Your task to perform on an android device: Clear the shopping cart on amazon.com. Add dell alienware to the cart on amazon.com, then select checkout. Image 0: 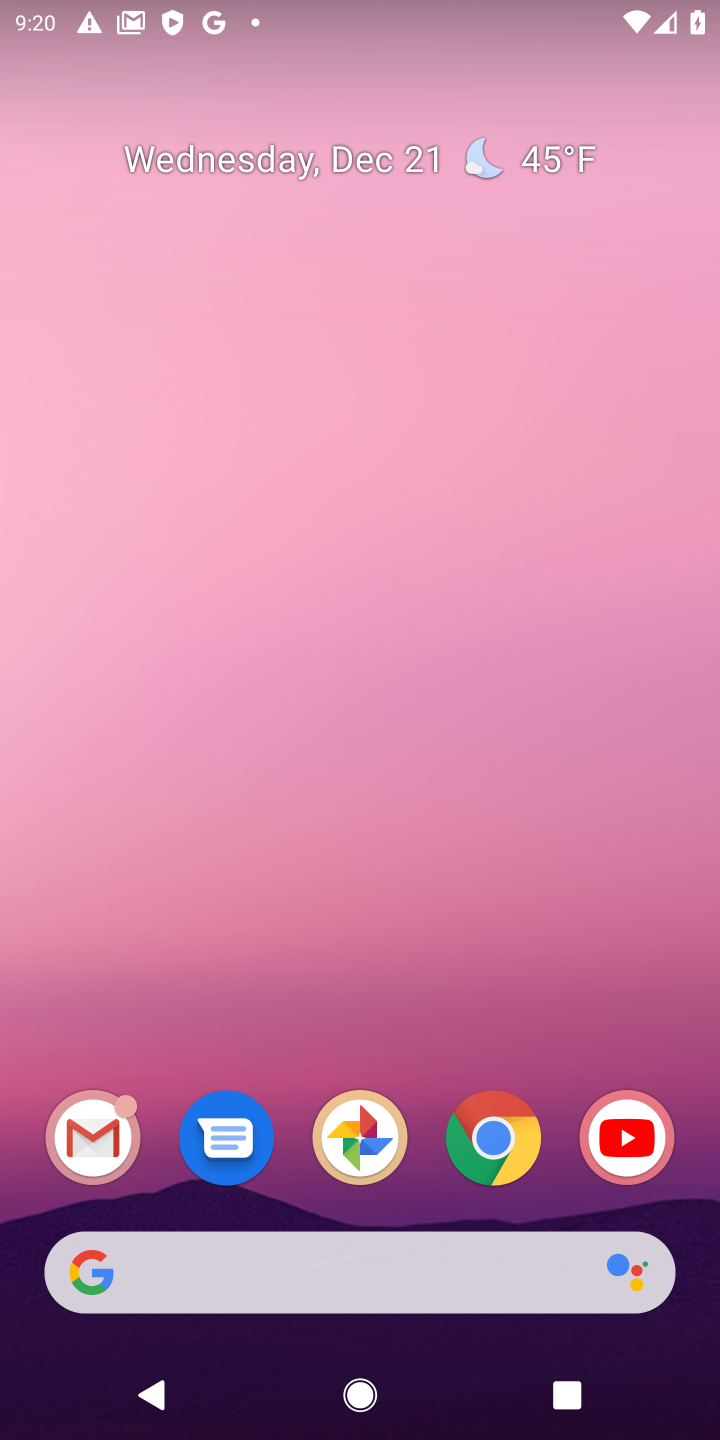
Step 0: click (496, 1151)
Your task to perform on an android device: Clear the shopping cart on amazon.com. Add dell alienware to the cart on amazon.com, then select checkout. Image 1: 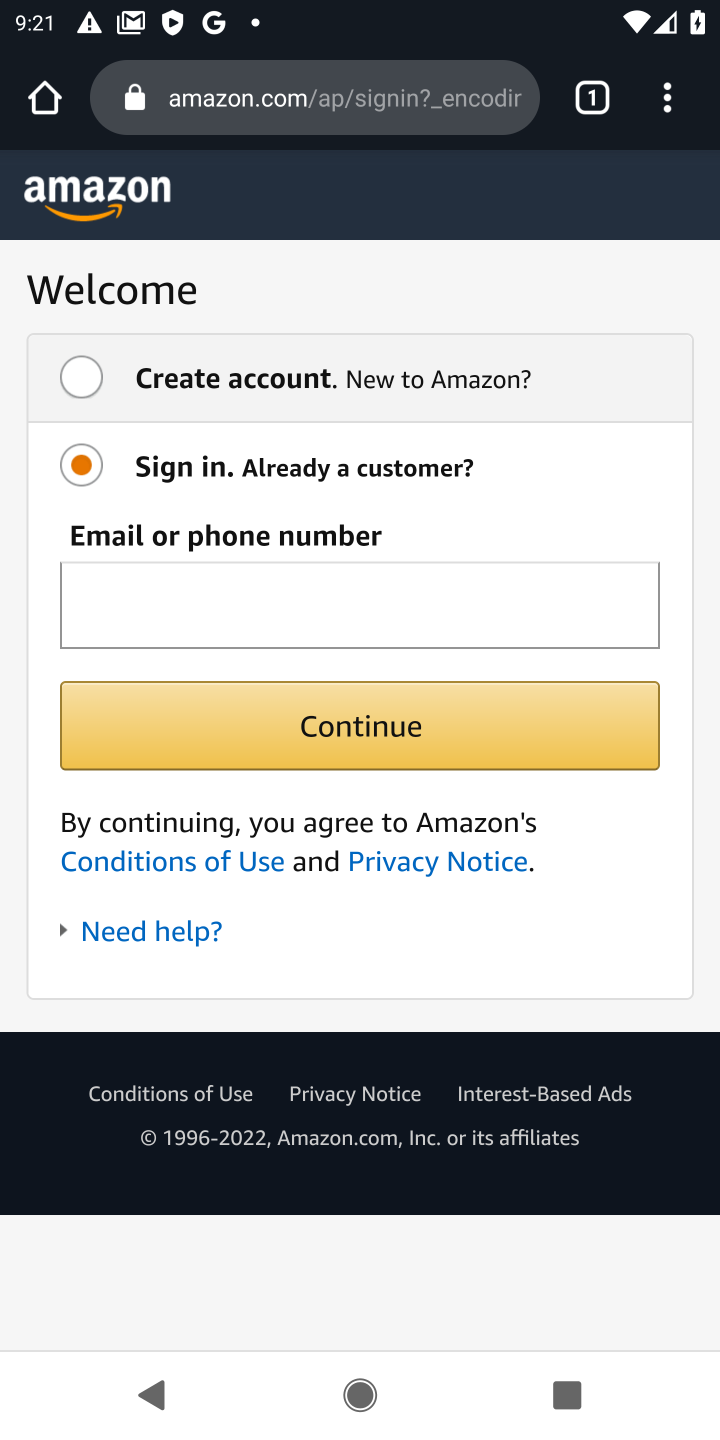
Step 1: press back button
Your task to perform on an android device: Clear the shopping cart on amazon.com. Add dell alienware to the cart on amazon.com, then select checkout. Image 2: 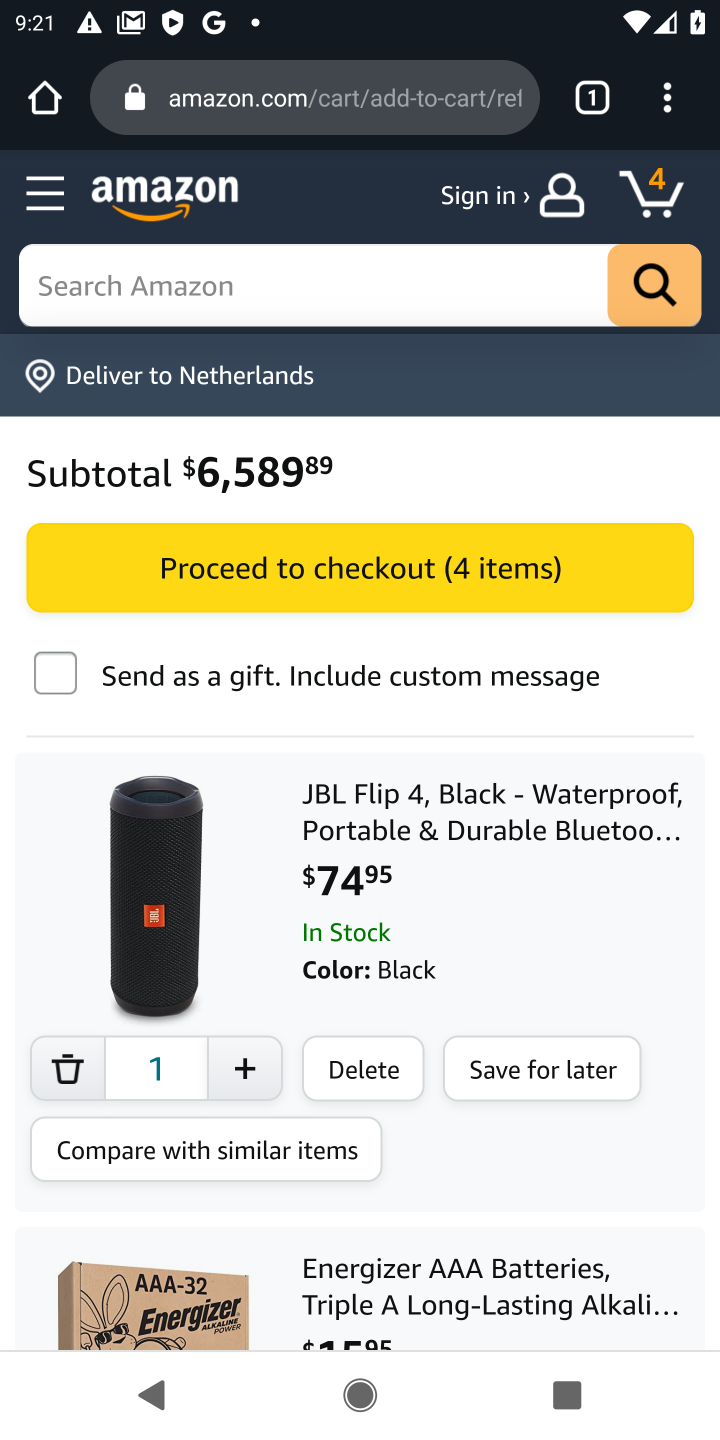
Step 2: click (355, 1063)
Your task to perform on an android device: Clear the shopping cart on amazon.com. Add dell alienware to the cart on amazon.com, then select checkout. Image 3: 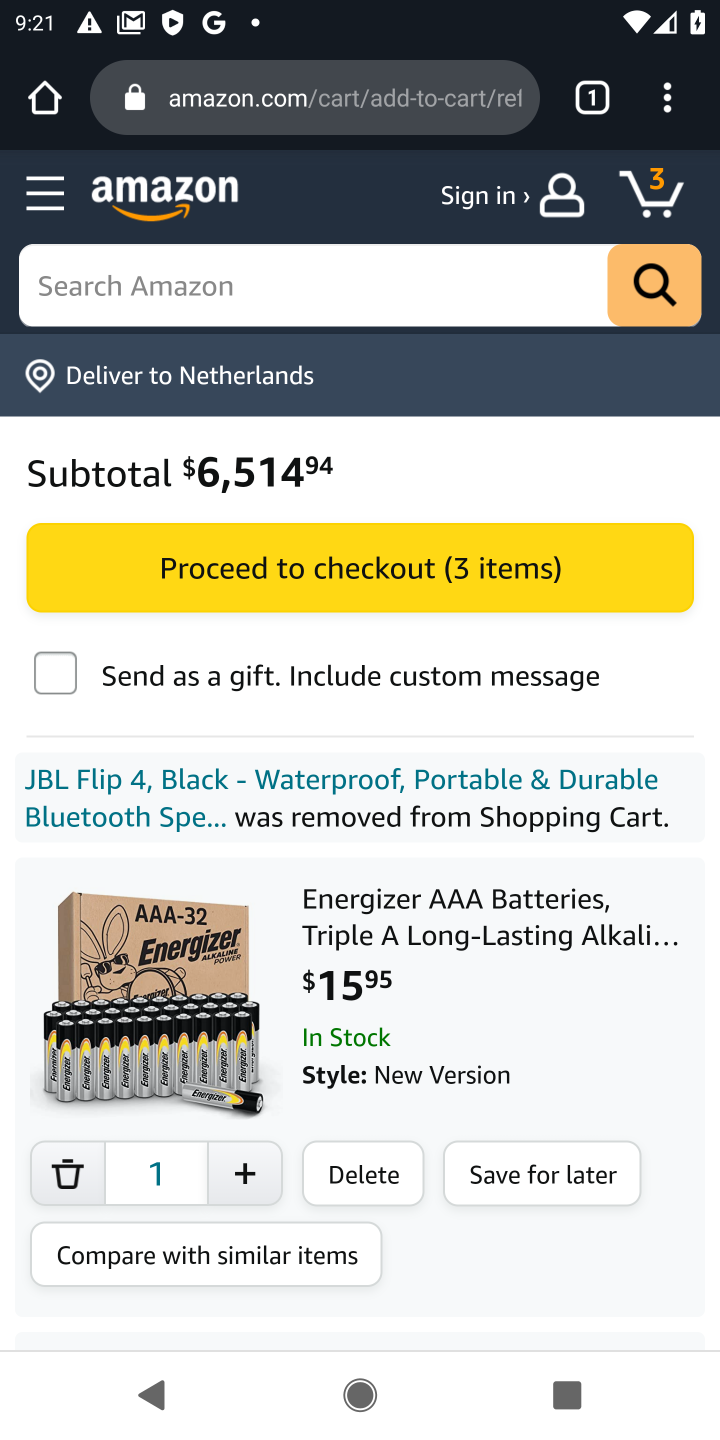
Step 3: click (372, 1186)
Your task to perform on an android device: Clear the shopping cart on amazon.com. Add dell alienware to the cart on amazon.com, then select checkout. Image 4: 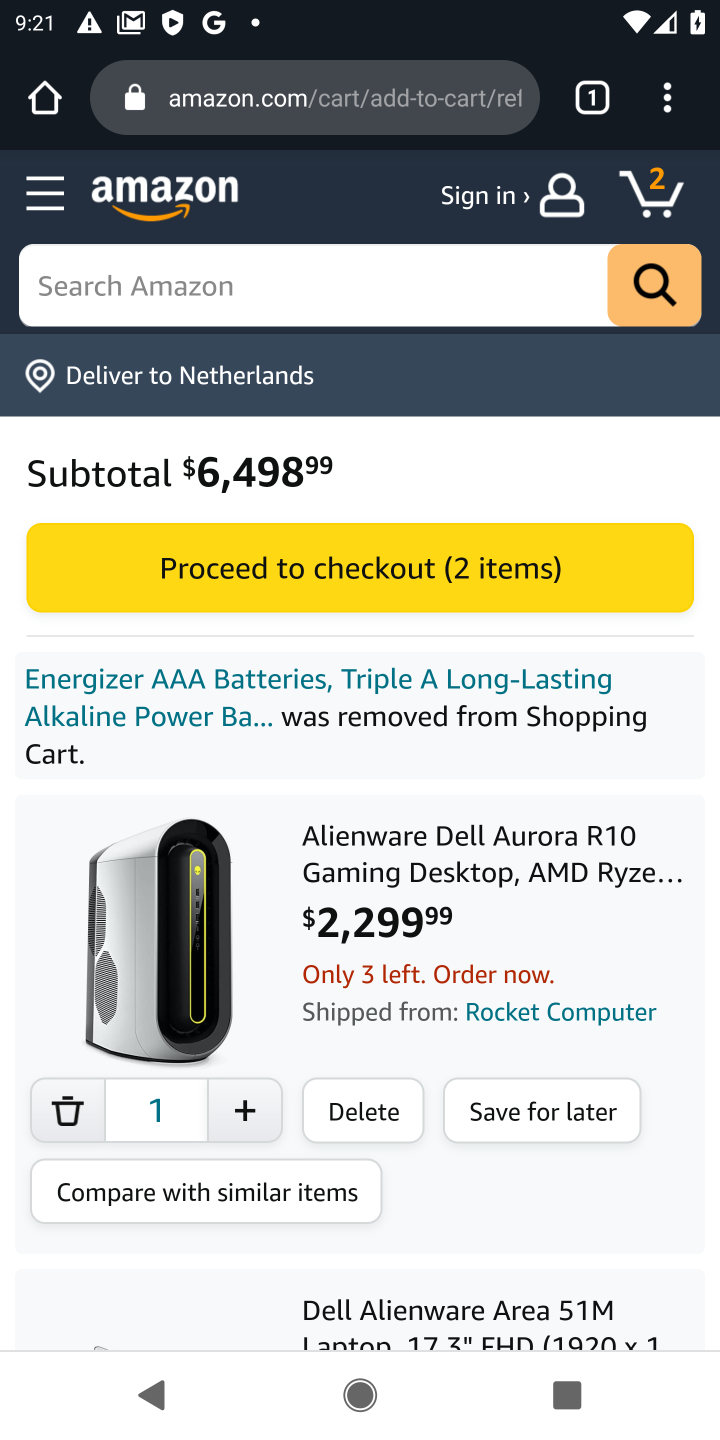
Step 4: click (374, 1104)
Your task to perform on an android device: Clear the shopping cart on amazon.com. Add dell alienware to the cart on amazon.com, then select checkout. Image 5: 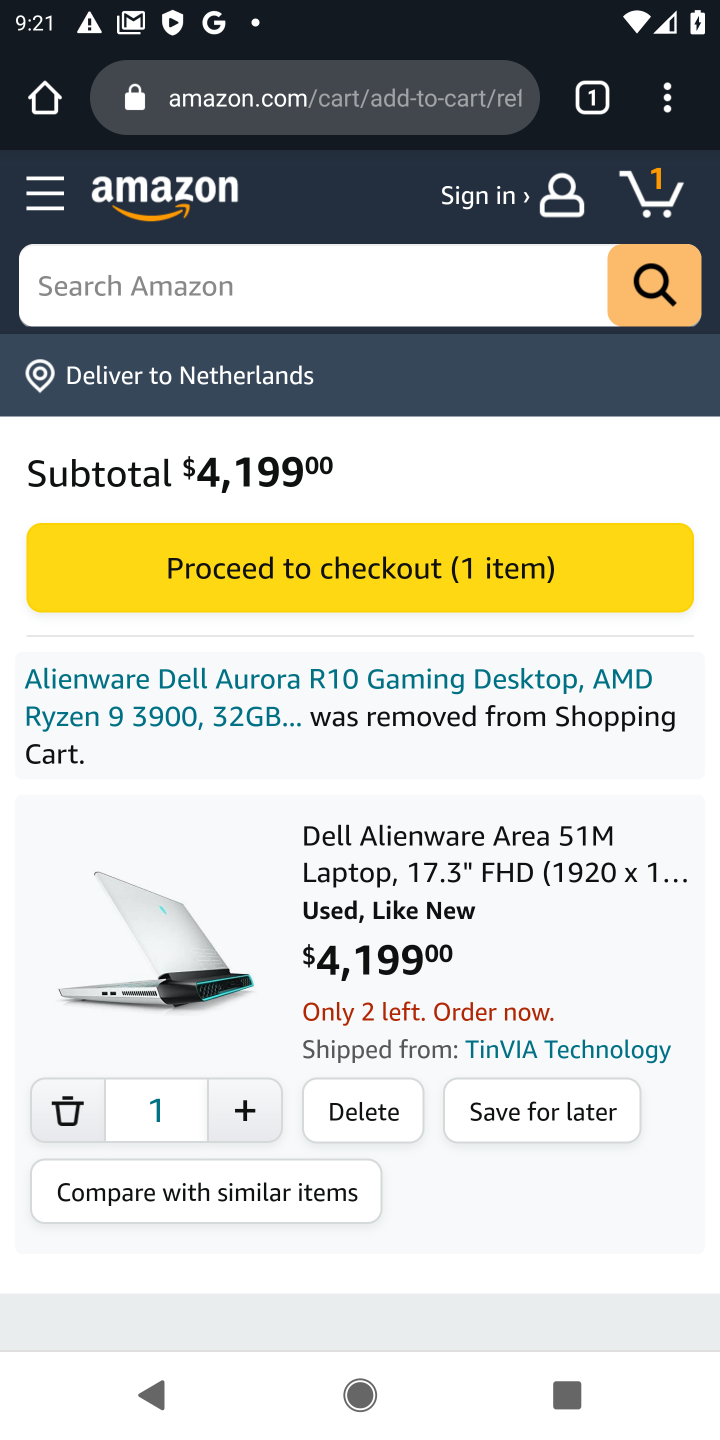
Step 5: click (361, 1096)
Your task to perform on an android device: Clear the shopping cart on amazon.com. Add dell alienware to the cart on amazon.com, then select checkout. Image 6: 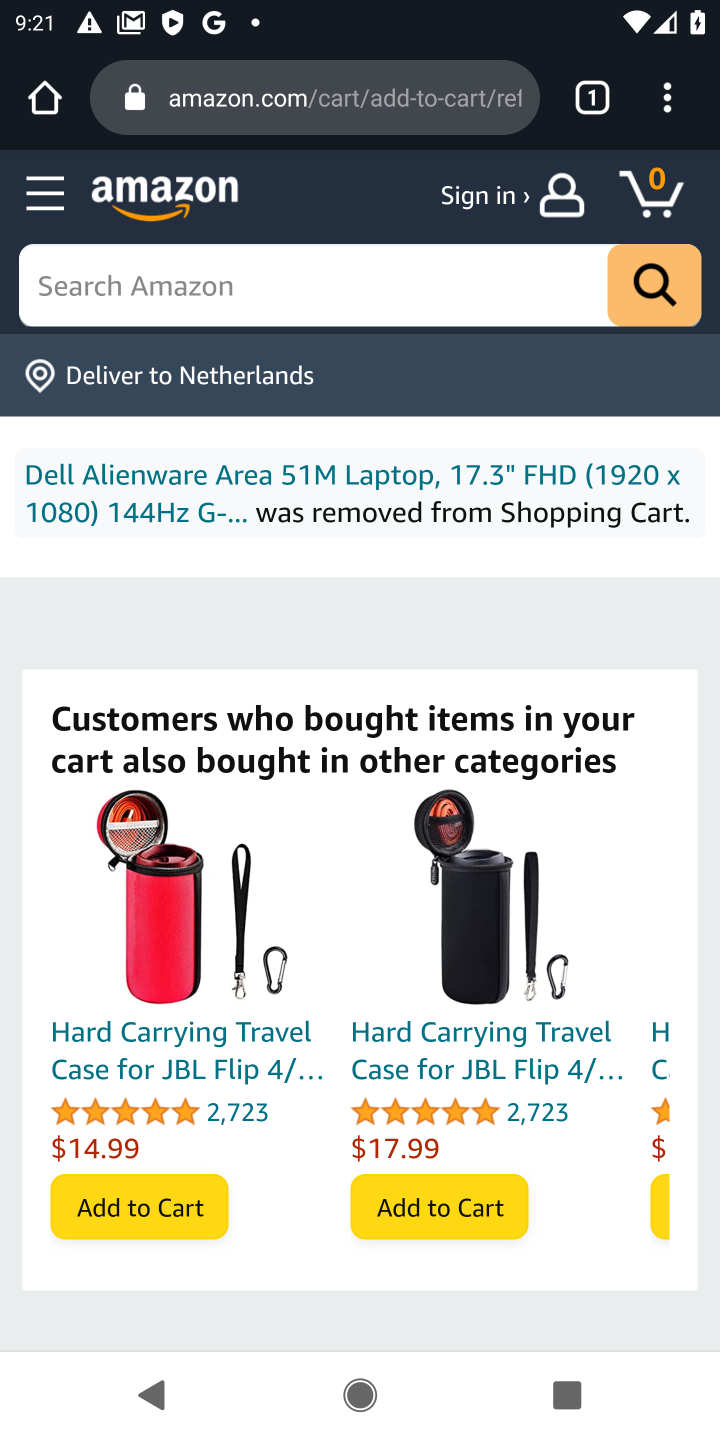
Step 6: click (186, 283)
Your task to perform on an android device: Clear the shopping cart on amazon.com. Add dell alienware to the cart on amazon.com, then select checkout. Image 7: 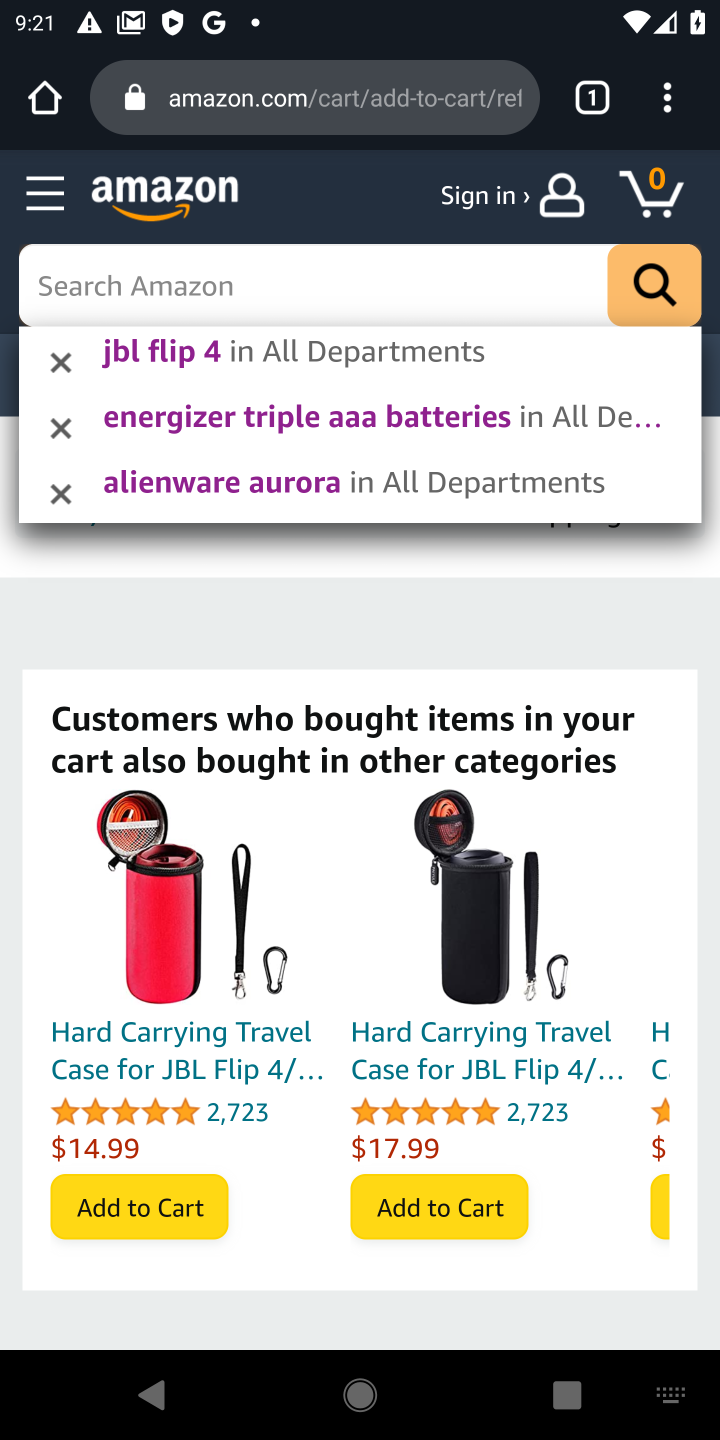
Step 7: type "dell alienware"
Your task to perform on an android device: Clear the shopping cart on amazon.com. Add dell alienware to the cart on amazon.com, then select checkout. Image 8: 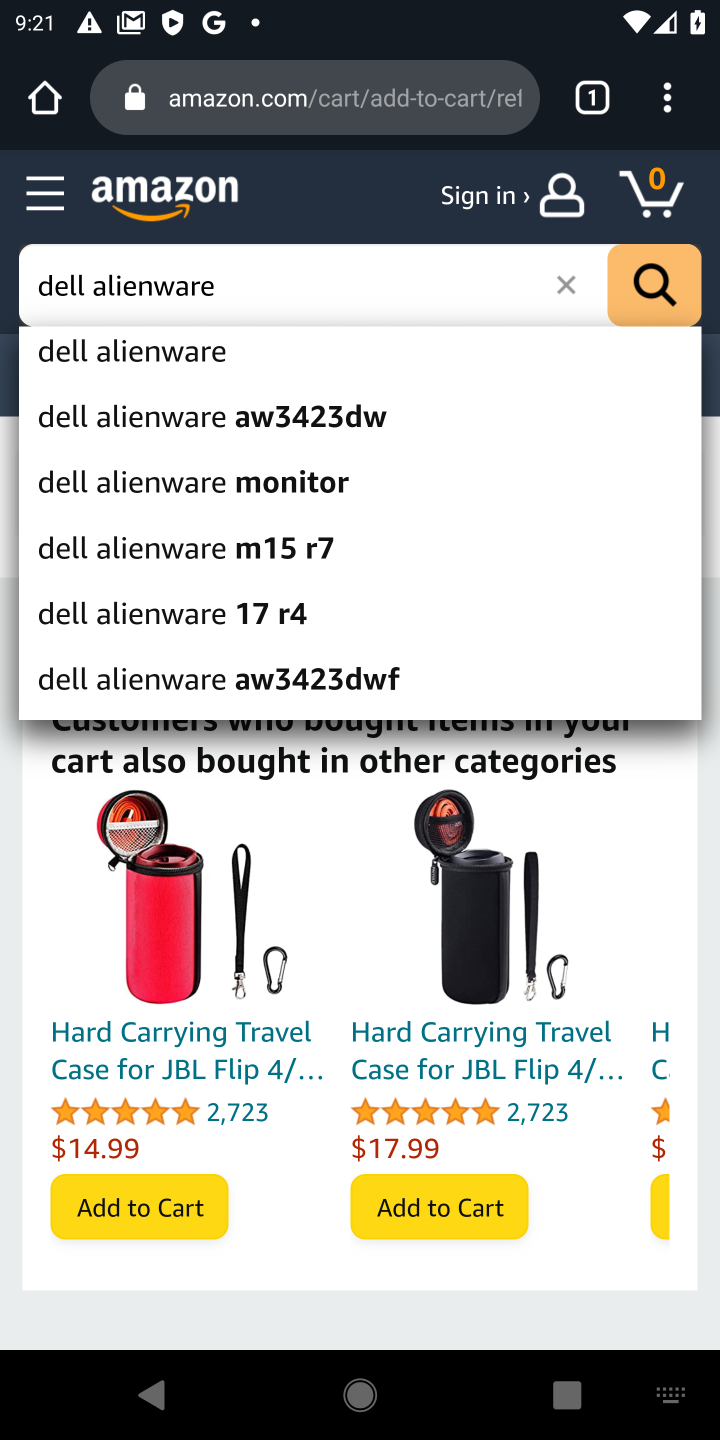
Step 8: click (117, 363)
Your task to perform on an android device: Clear the shopping cart on amazon.com. Add dell alienware to the cart on amazon.com, then select checkout. Image 9: 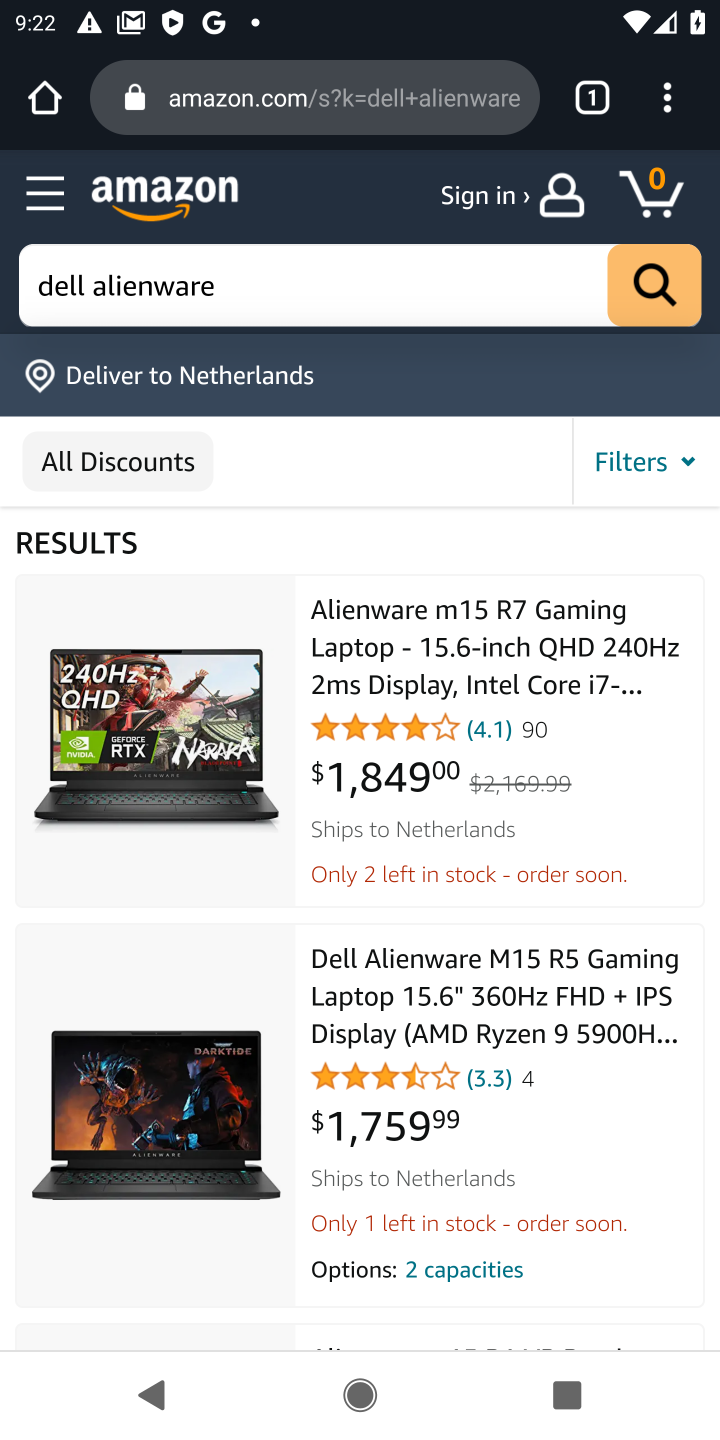
Step 9: click (447, 687)
Your task to perform on an android device: Clear the shopping cart on amazon.com. Add dell alienware to the cart on amazon.com, then select checkout. Image 10: 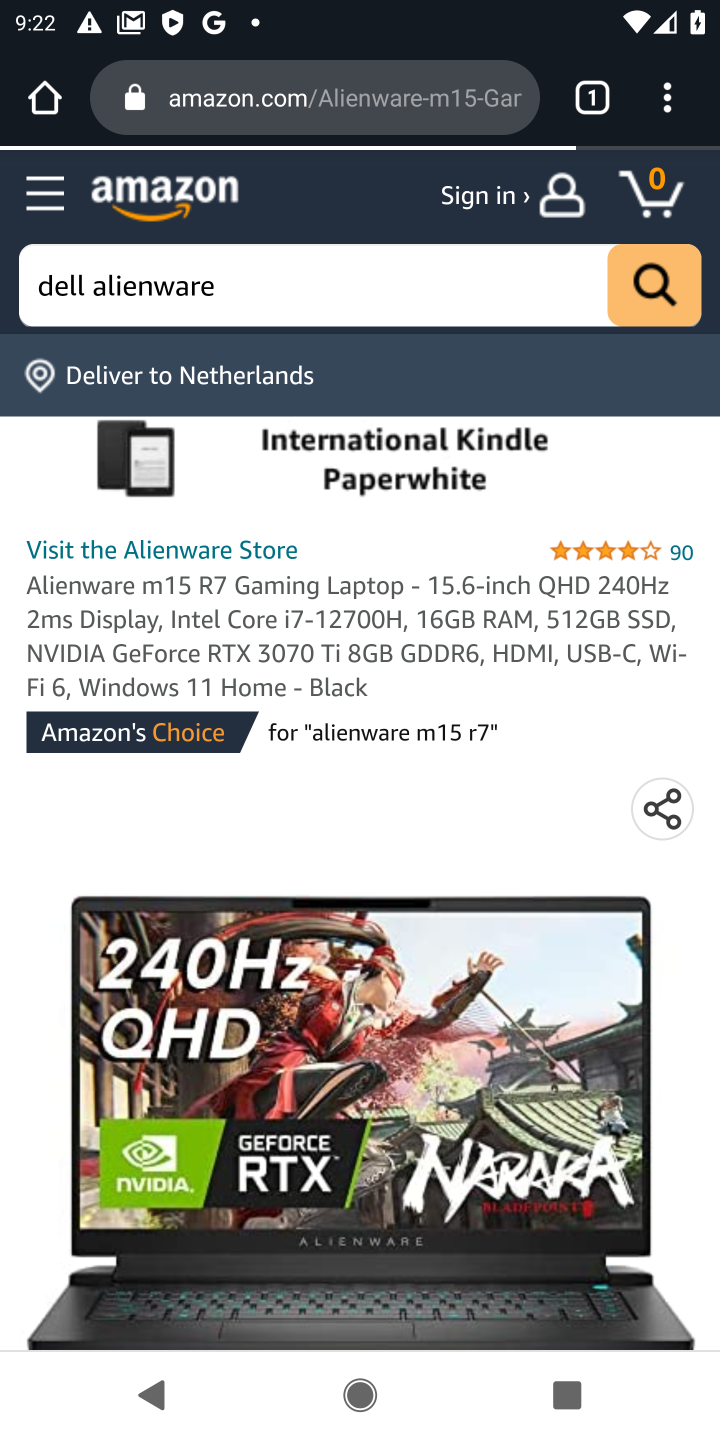
Step 10: drag from (350, 972) to (357, 618)
Your task to perform on an android device: Clear the shopping cart on amazon.com. Add dell alienware to the cart on amazon.com, then select checkout. Image 11: 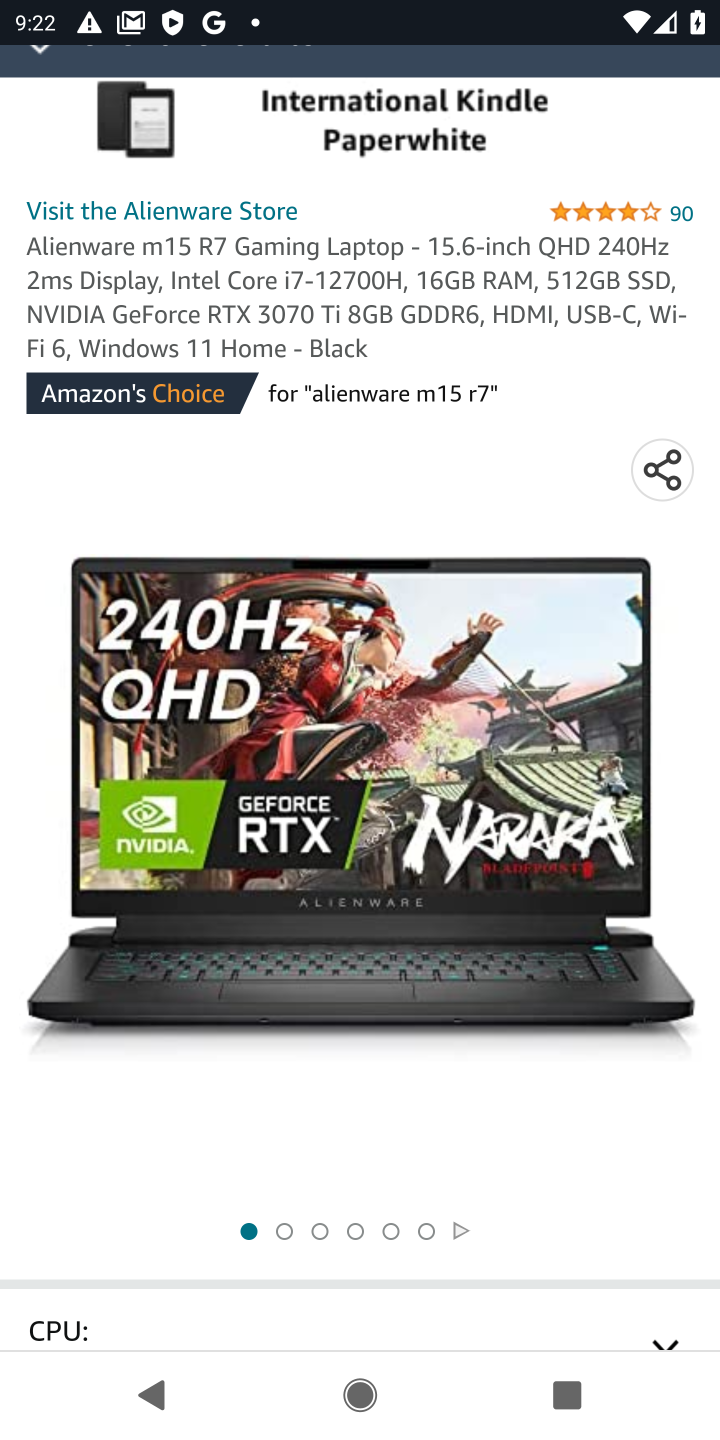
Step 11: drag from (419, 1027) to (411, 542)
Your task to perform on an android device: Clear the shopping cart on amazon.com. Add dell alienware to the cart on amazon.com, then select checkout. Image 12: 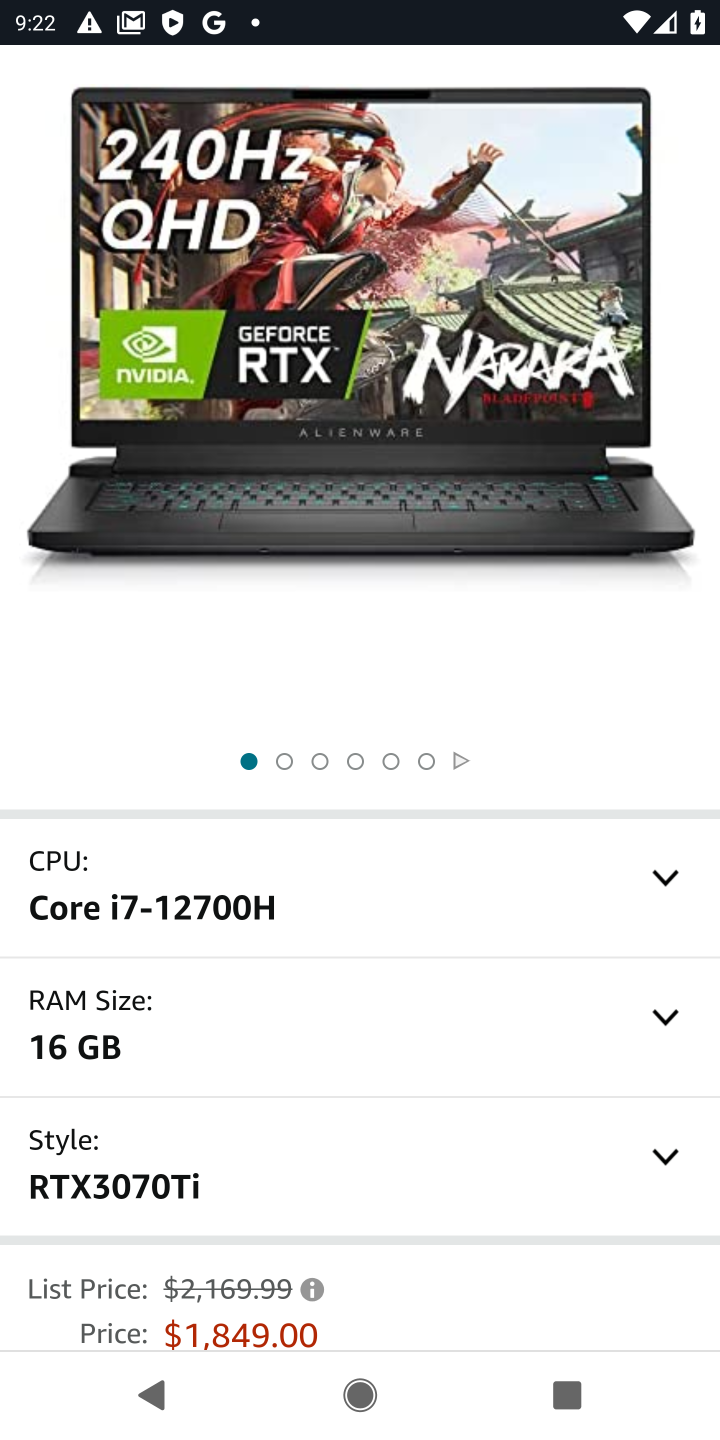
Step 12: drag from (391, 1041) to (391, 534)
Your task to perform on an android device: Clear the shopping cart on amazon.com. Add dell alienware to the cart on amazon.com, then select checkout. Image 13: 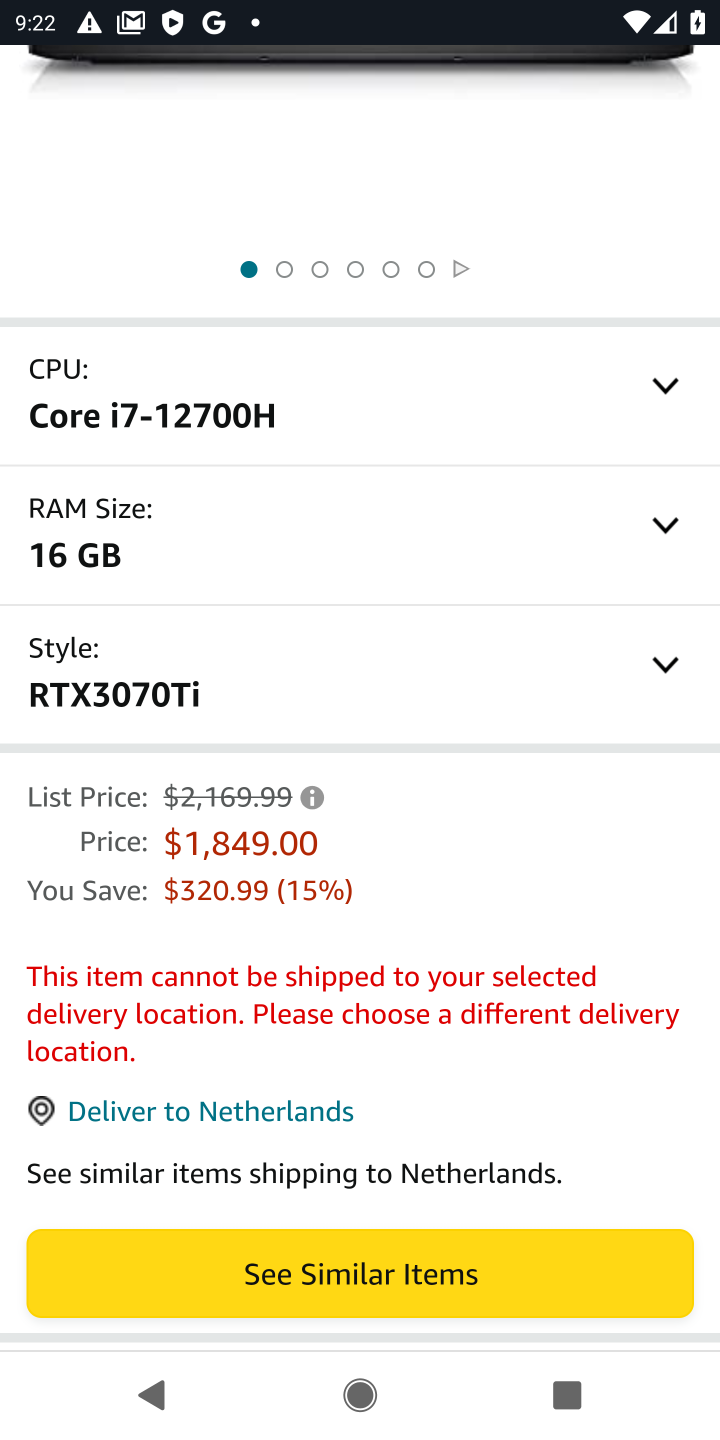
Step 13: press back button
Your task to perform on an android device: Clear the shopping cart on amazon.com. Add dell alienware to the cart on amazon.com, then select checkout. Image 14: 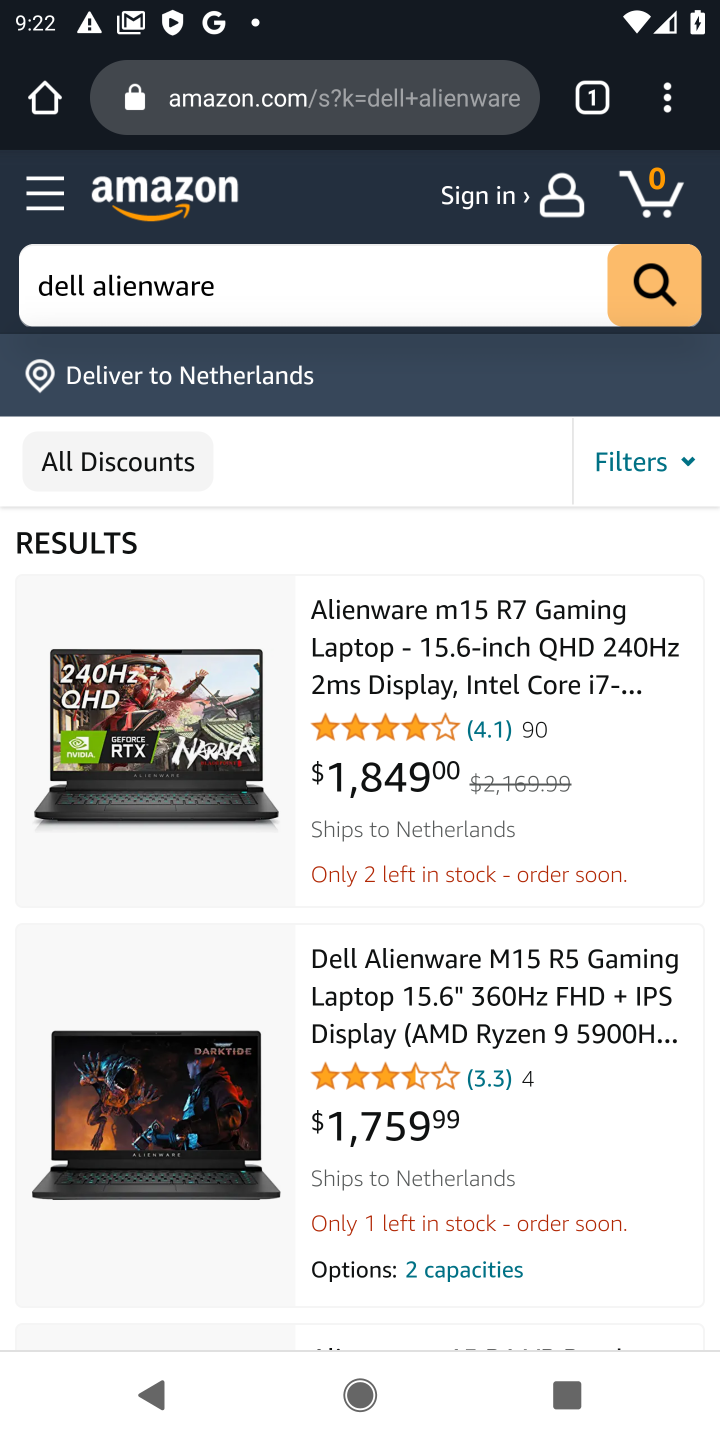
Step 14: drag from (378, 896) to (372, 552)
Your task to perform on an android device: Clear the shopping cart on amazon.com. Add dell alienware to the cart on amazon.com, then select checkout. Image 15: 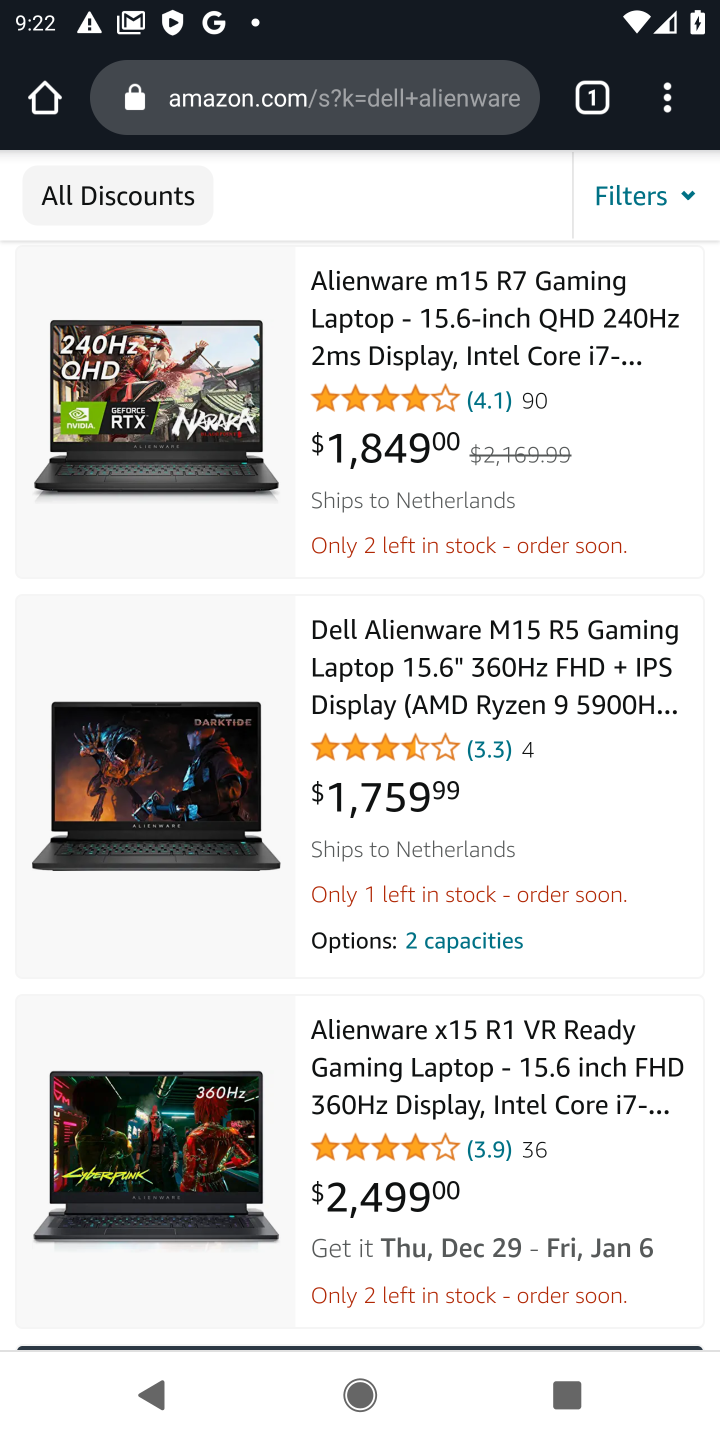
Step 15: drag from (369, 962) to (392, 611)
Your task to perform on an android device: Clear the shopping cart on amazon.com. Add dell alienware to the cart on amazon.com, then select checkout. Image 16: 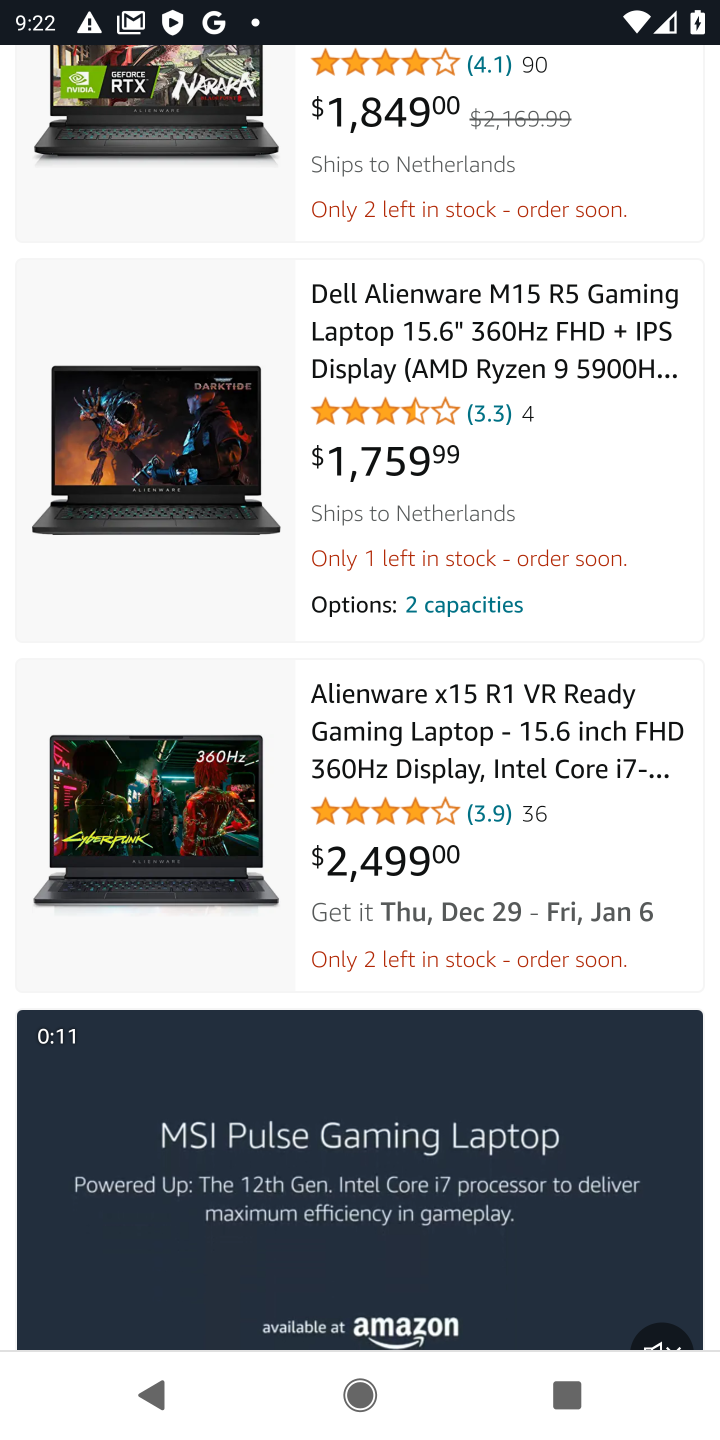
Step 16: click (436, 357)
Your task to perform on an android device: Clear the shopping cart on amazon.com. Add dell alienware to the cart on amazon.com, then select checkout. Image 17: 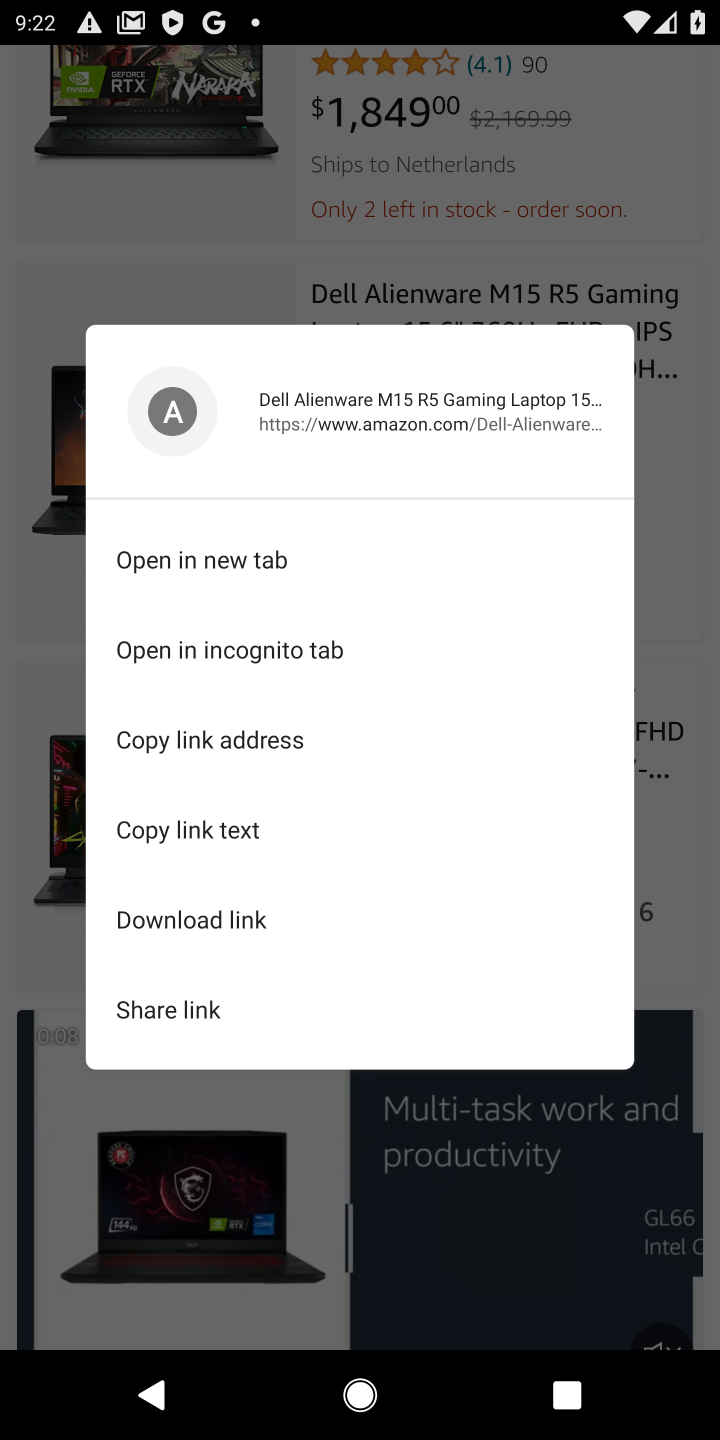
Step 17: click (638, 304)
Your task to perform on an android device: Clear the shopping cart on amazon.com. Add dell alienware to the cart on amazon.com, then select checkout. Image 18: 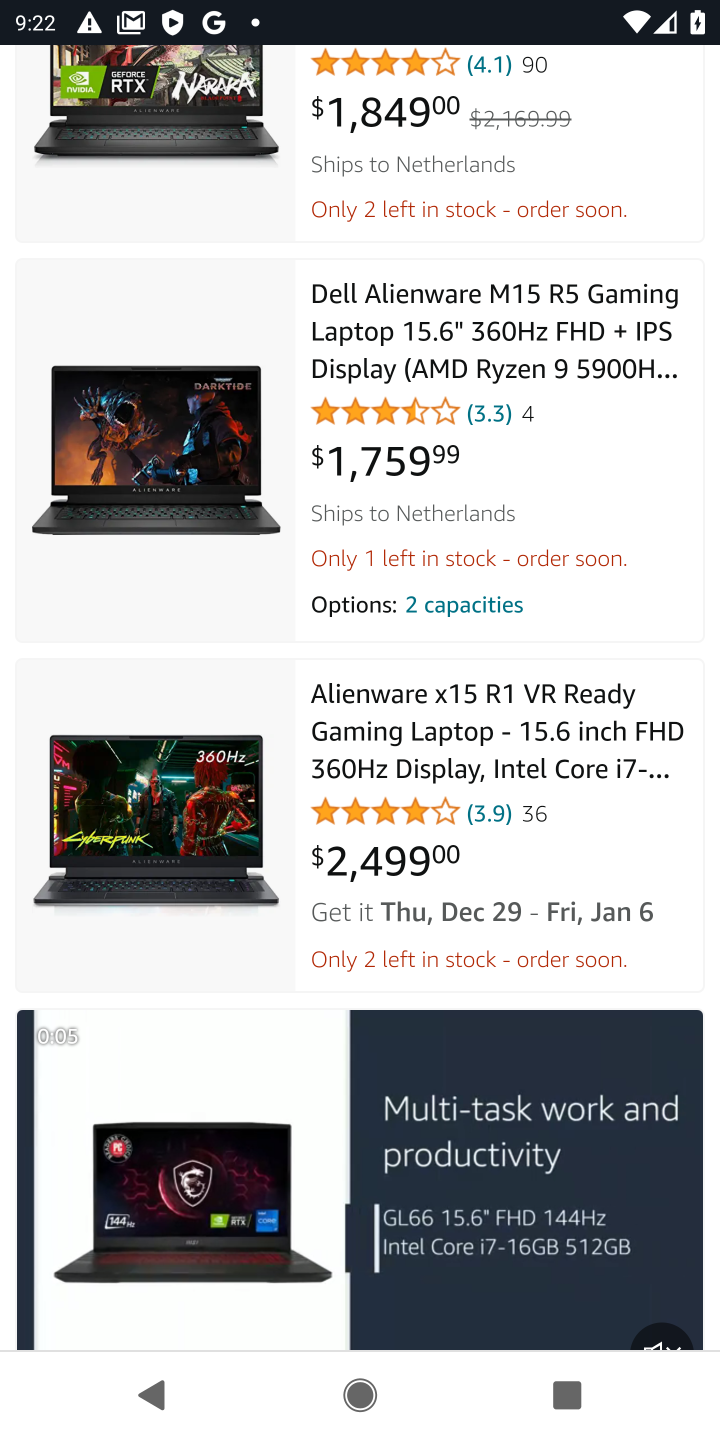
Step 18: click (386, 369)
Your task to perform on an android device: Clear the shopping cart on amazon.com. Add dell alienware to the cart on amazon.com, then select checkout. Image 19: 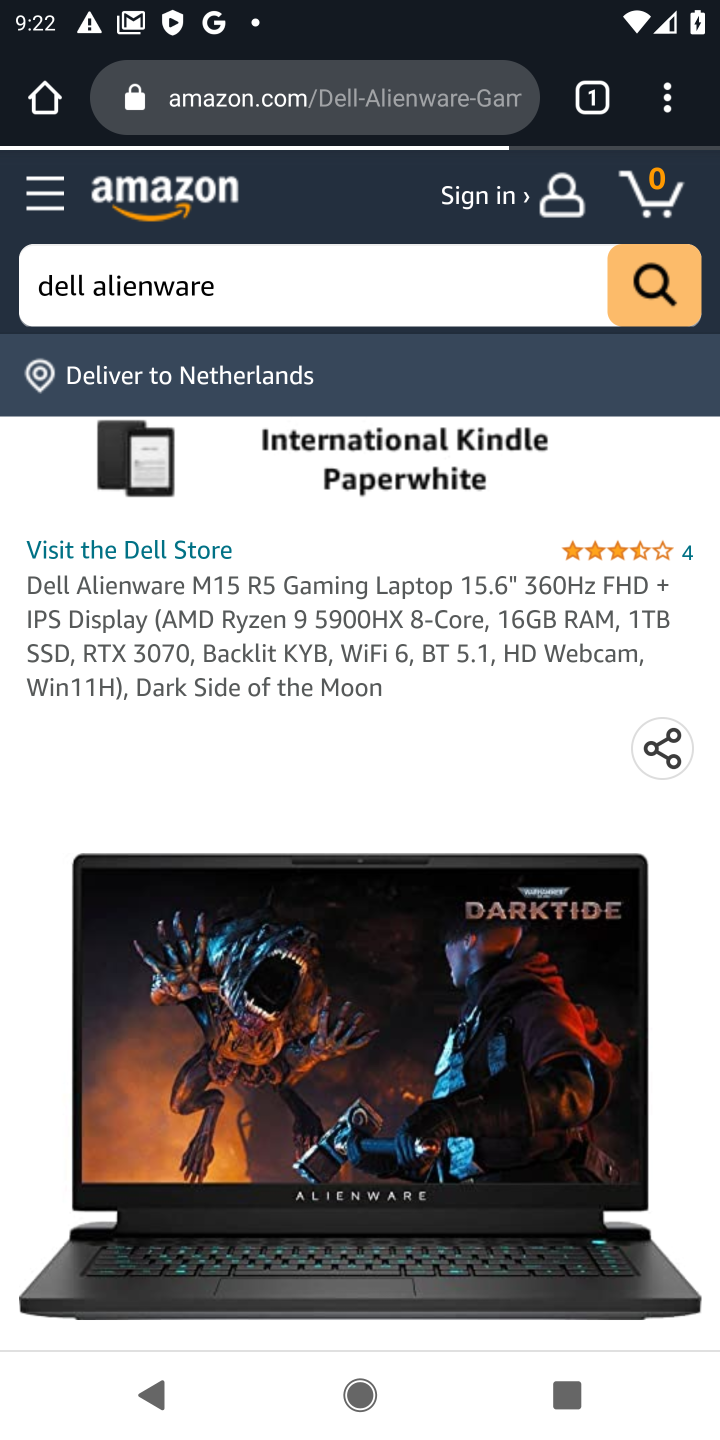
Step 19: drag from (322, 902) to (331, 399)
Your task to perform on an android device: Clear the shopping cart on amazon.com. Add dell alienware to the cart on amazon.com, then select checkout. Image 20: 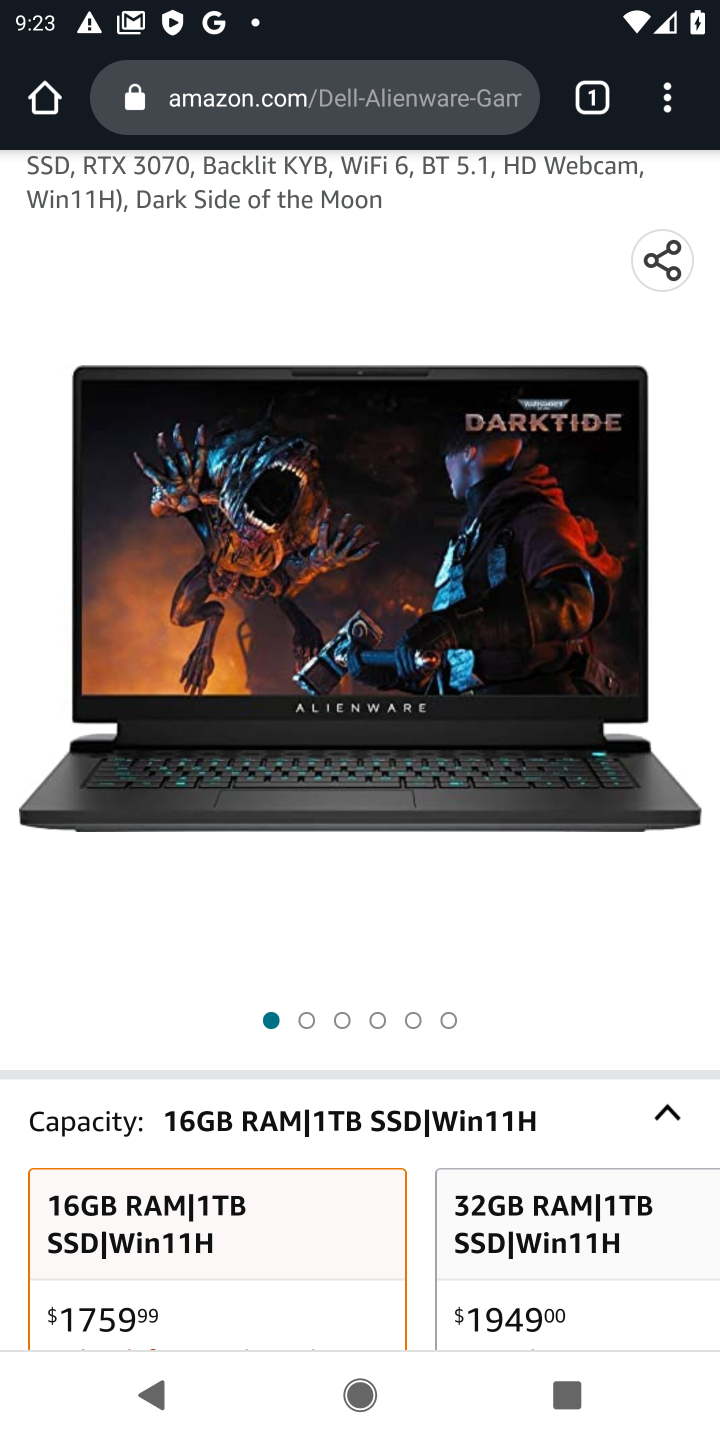
Step 20: drag from (393, 1001) to (392, 540)
Your task to perform on an android device: Clear the shopping cart on amazon.com. Add dell alienware to the cart on amazon.com, then select checkout. Image 21: 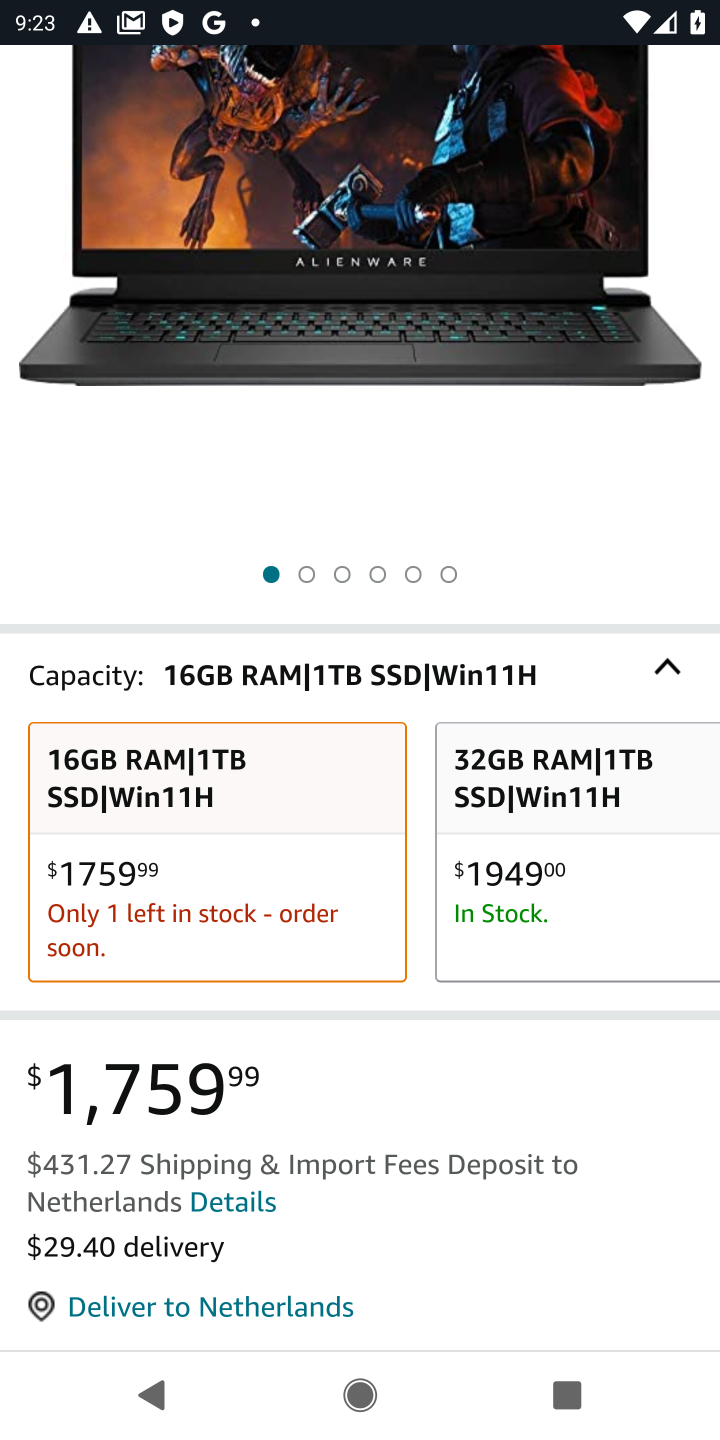
Step 21: drag from (395, 1003) to (371, 549)
Your task to perform on an android device: Clear the shopping cart on amazon.com. Add dell alienware to the cart on amazon.com, then select checkout. Image 22: 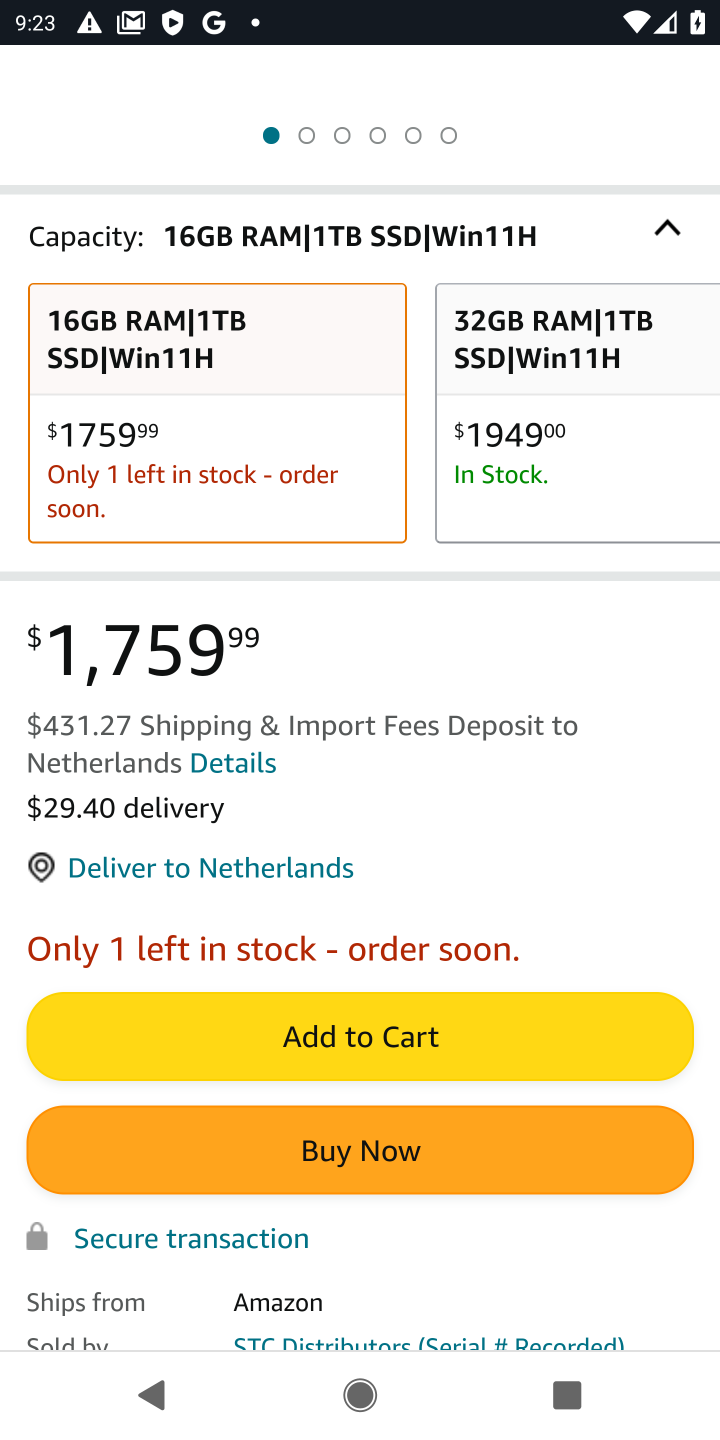
Step 22: click (317, 1023)
Your task to perform on an android device: Clear the shopping cart on amazon.com. Add dell alienware to the cart on amazon.com, then select checkout. Image 23: 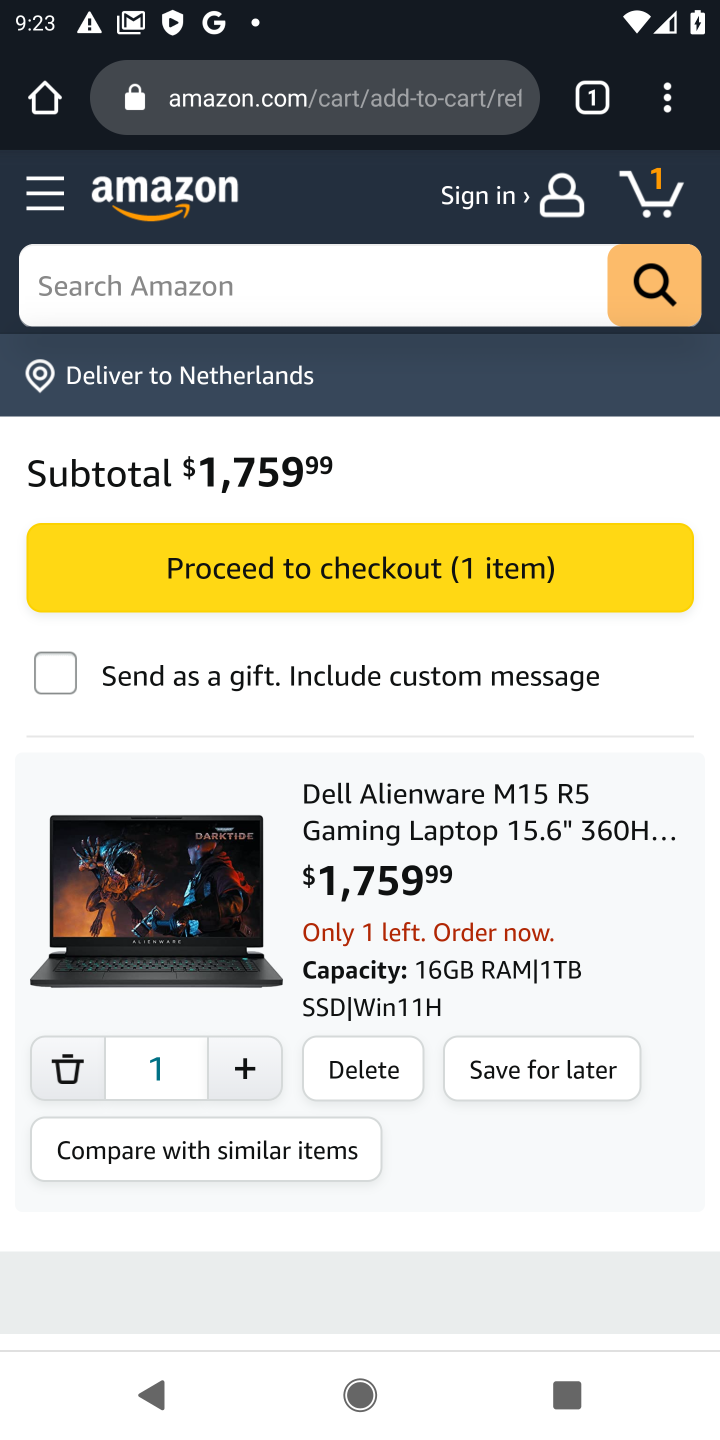
Step 23: click (355, 560)
Your task to perform on an android device: Clear the shopping cart on amazon.com. Add dell alienware to the cart on amazon.com, then select checkout. Image 24: 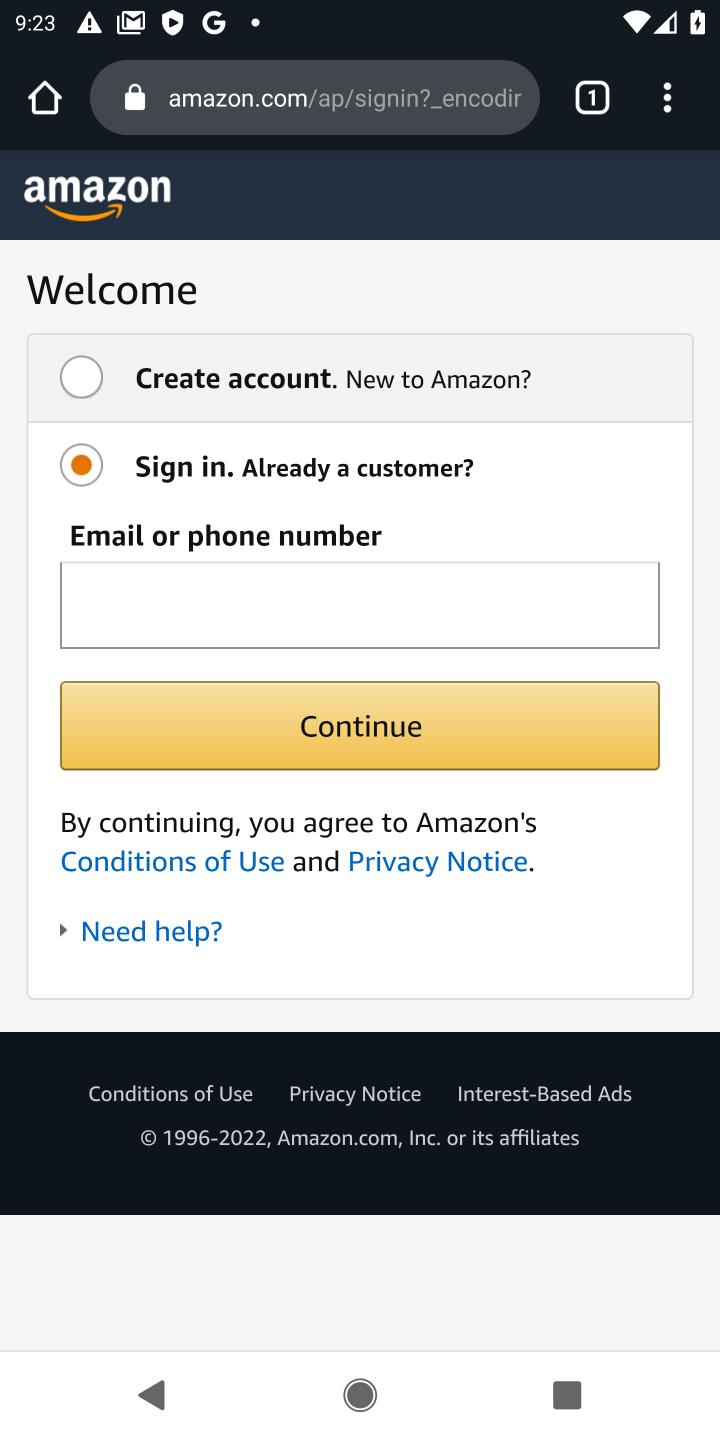
Step 24: task complete